Your task to perform on an android device: Empty the shopping cart on costco. Image 0: 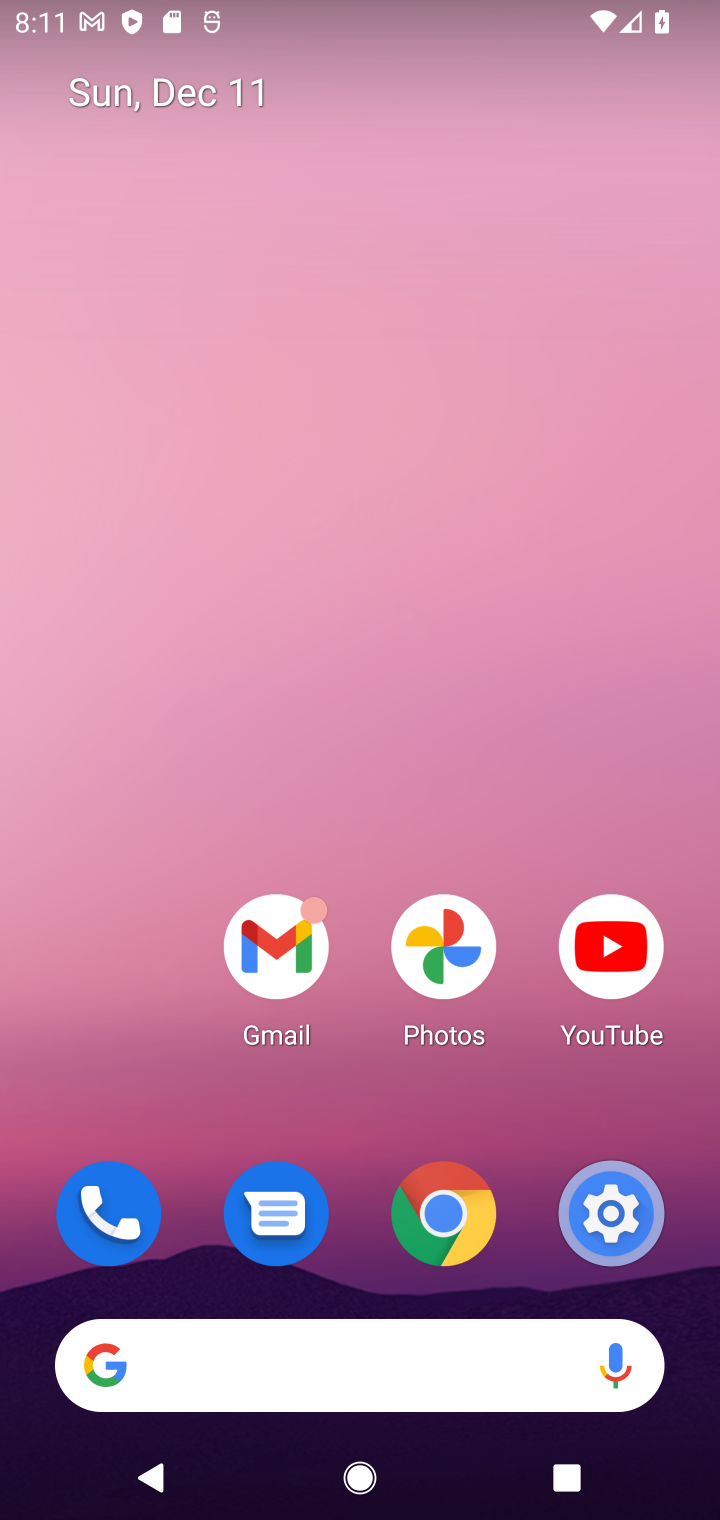
Step 0: click (410, 1383)
Your task to perform on an android device: Empty the shopping cart on costco. Image 1: 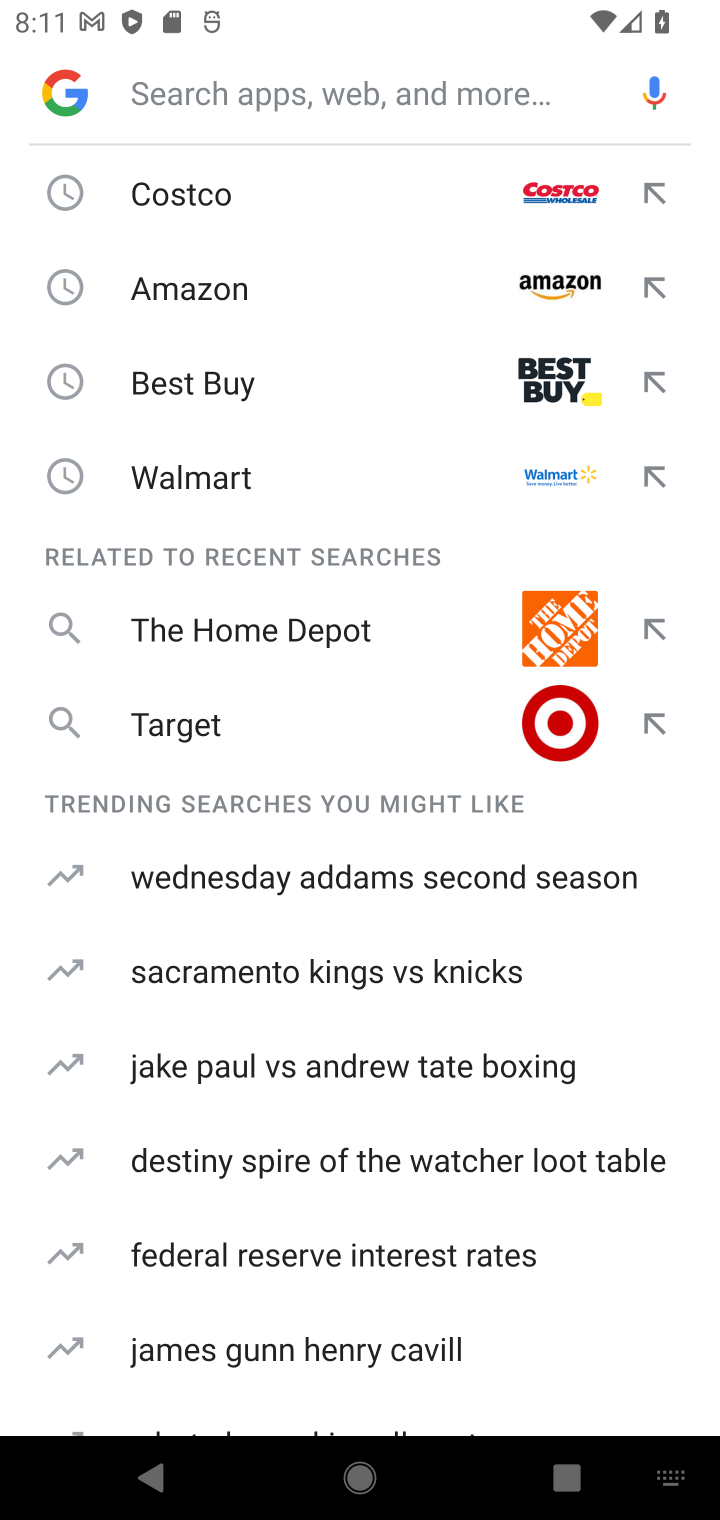
Step 1: type "costco"
Your task to perform on an android device: Empty the shopping cart on costco. Image 2: 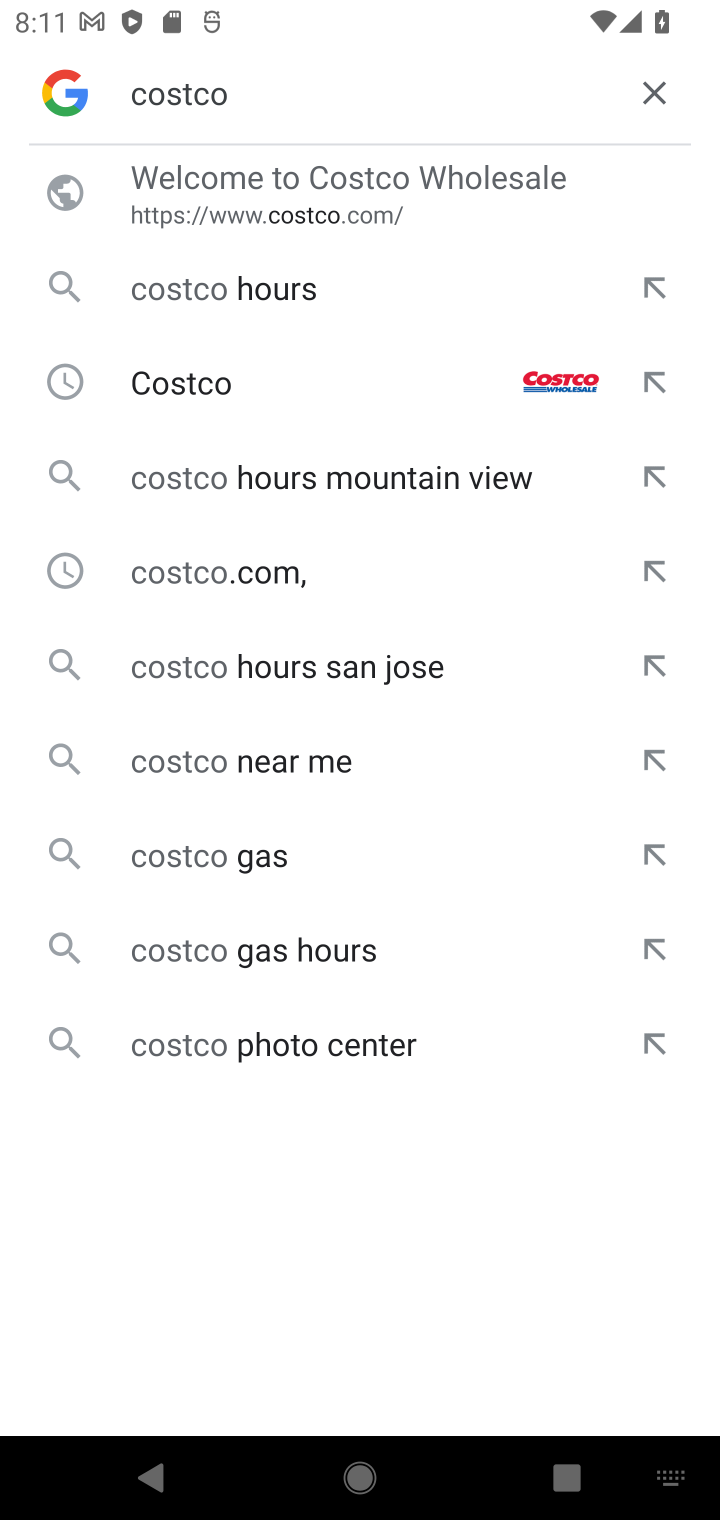
Step 2: click (347, 224)
Your task to perform on an android device: Empty the shopping cart on costco. Image 3: 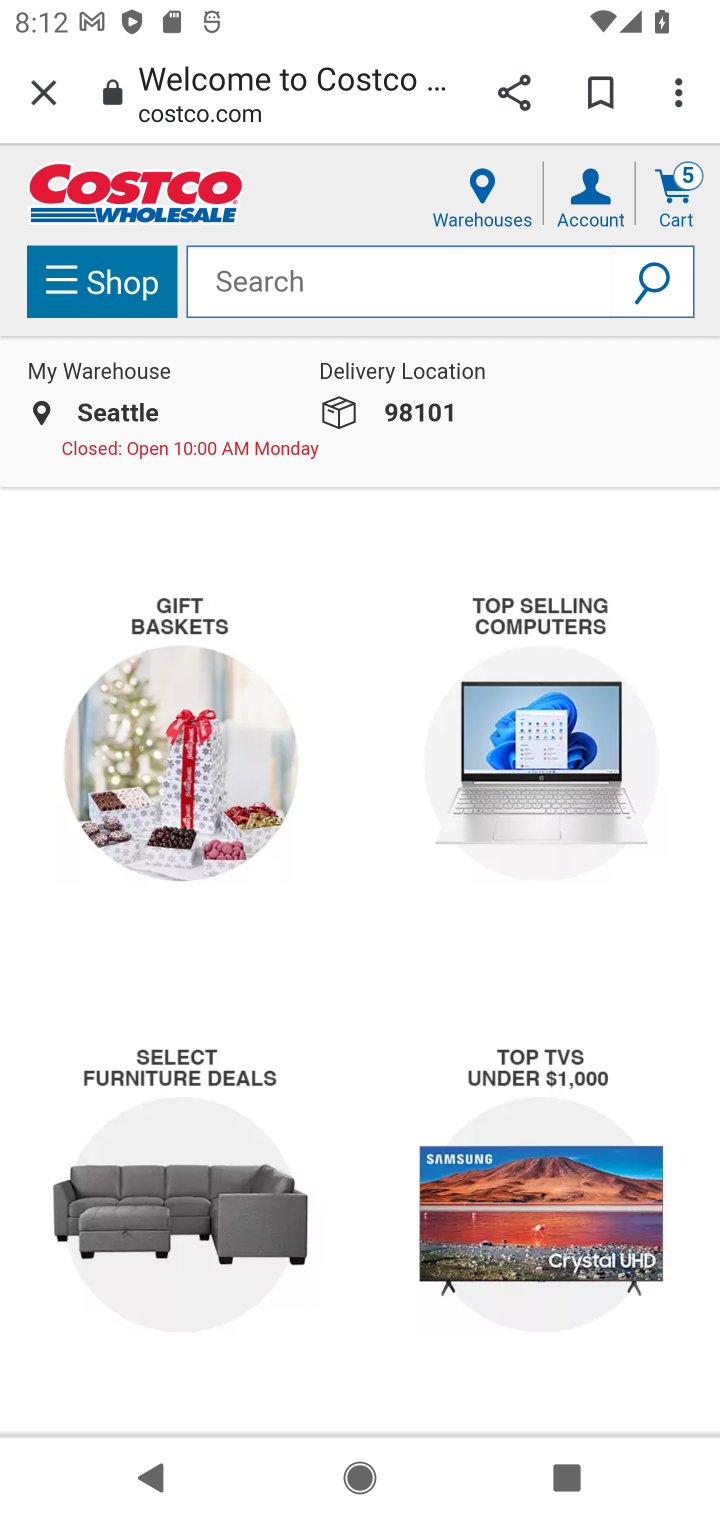
Step 3: click (259, 276)
Your task to perform on an android device: Empty the shopping cart on costco. Image 4: 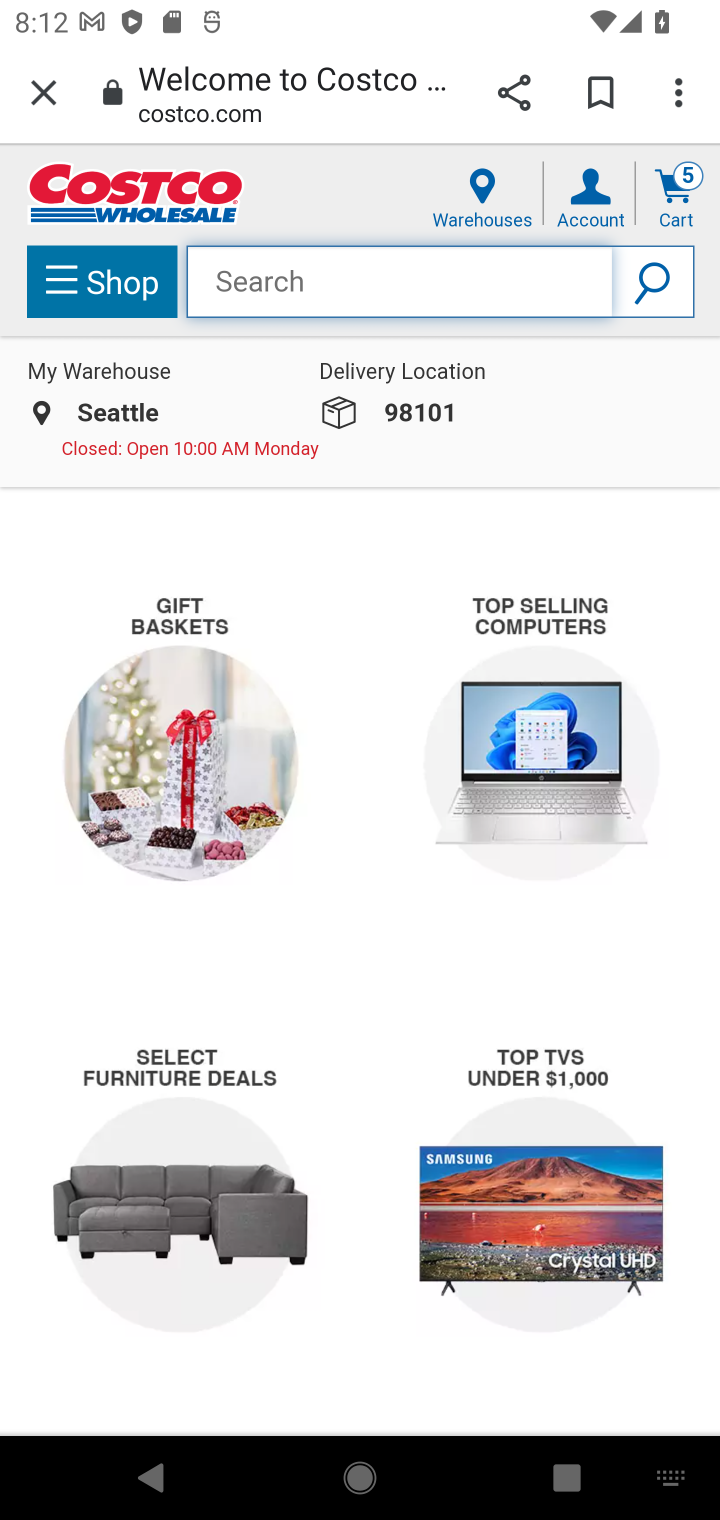
Step 4: click (659, 187)
Your task to perform on an android device: Empty the shopping cart on costco. Image 5: 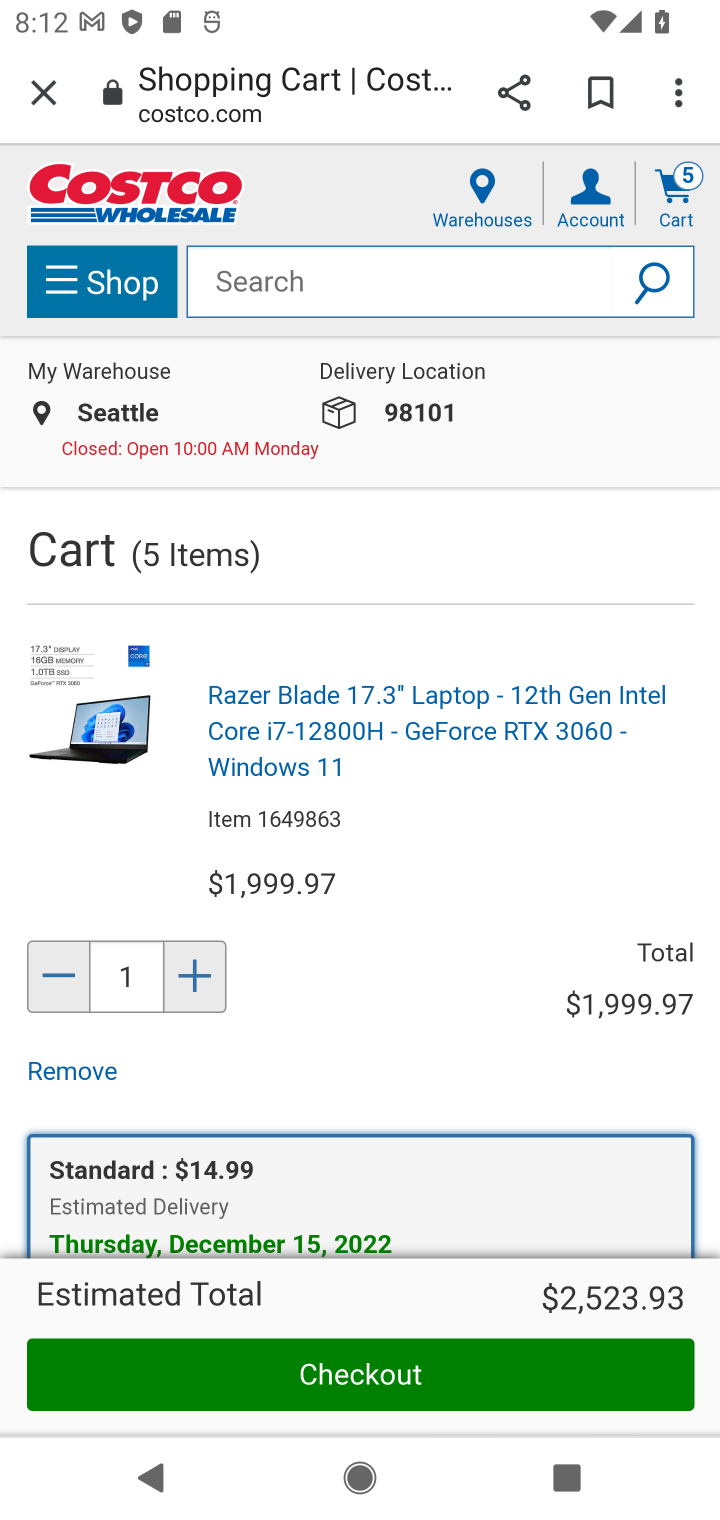
Step 5: click (458, 298)
Your task to perform on an android device: Empty the shopping cart on costco. Image 6: 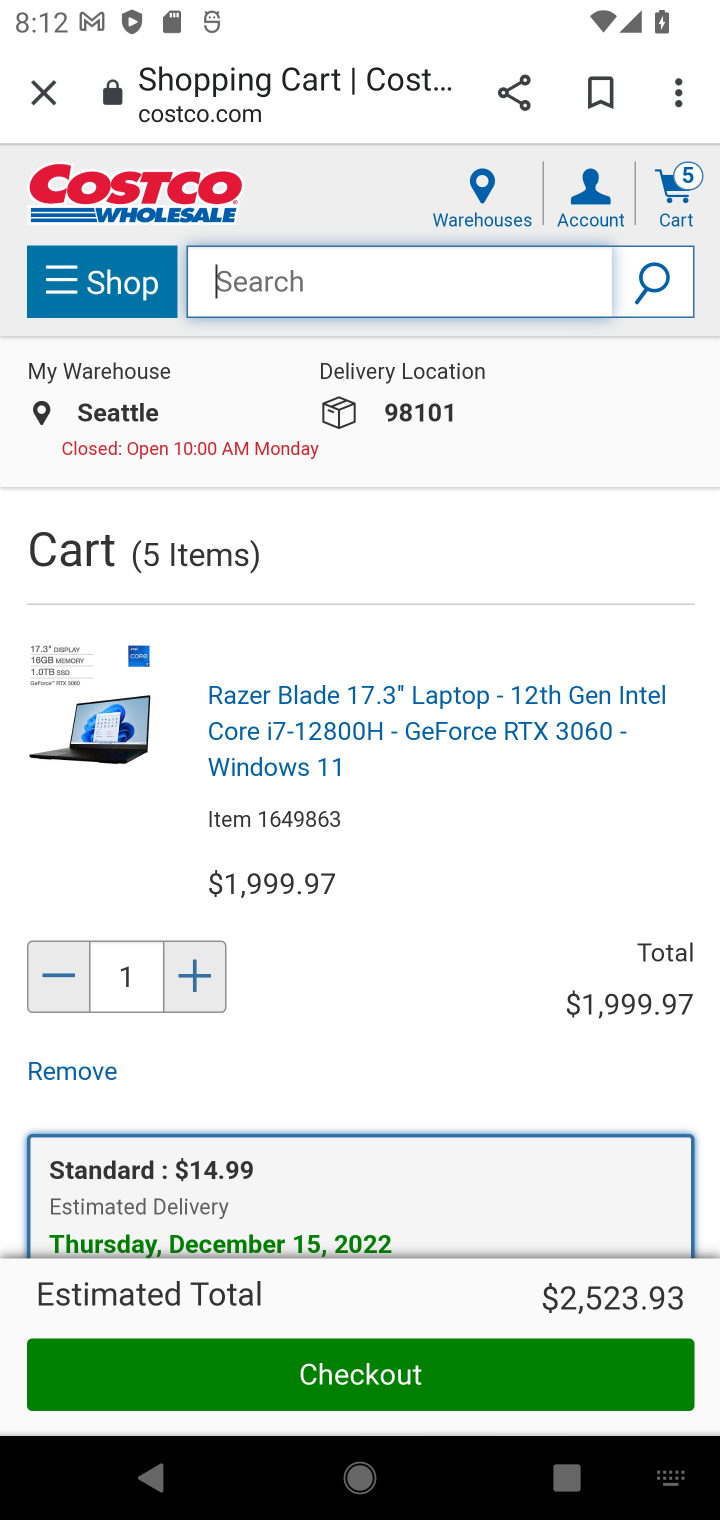
Step 6: task complete